Your task to perform on an android device: Go to Google maps Image 0: 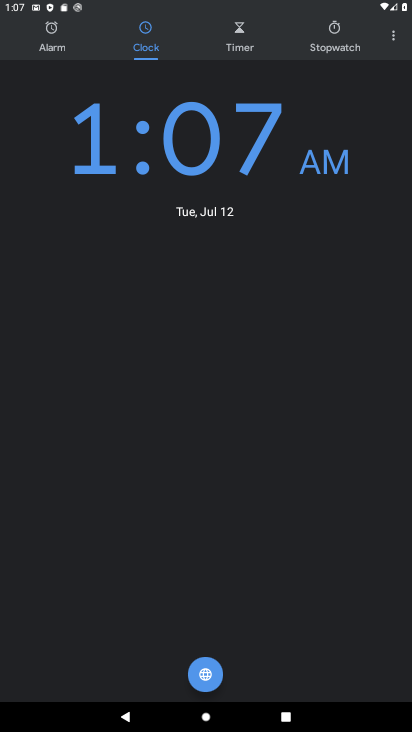
Step 0: press home button
Your task to perform on an android device: Go to Google maps Image 1: 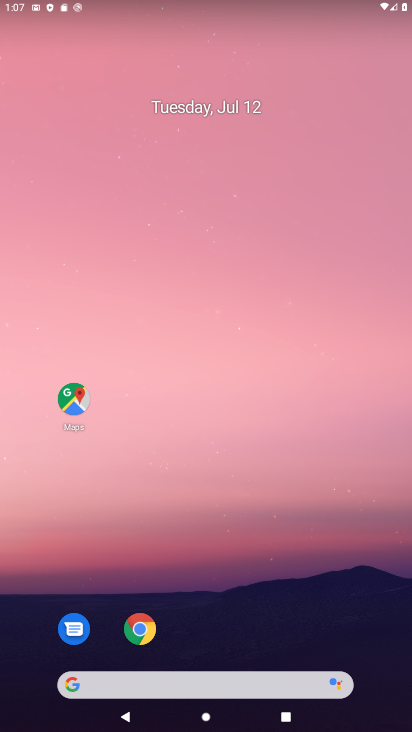
Step 1: drag from (323, 503) to (274, 105)
Your task to perform on an android device: Go to Google maps Image 2: 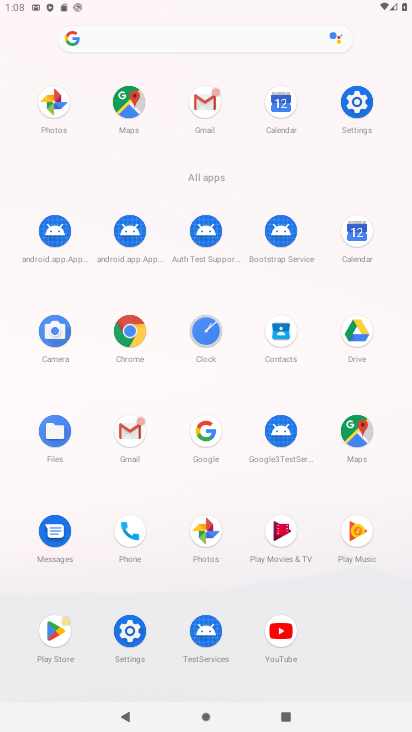
Step 2: click (359, 430)
Your task to perform on an android device: Go to Google maps Image 3: 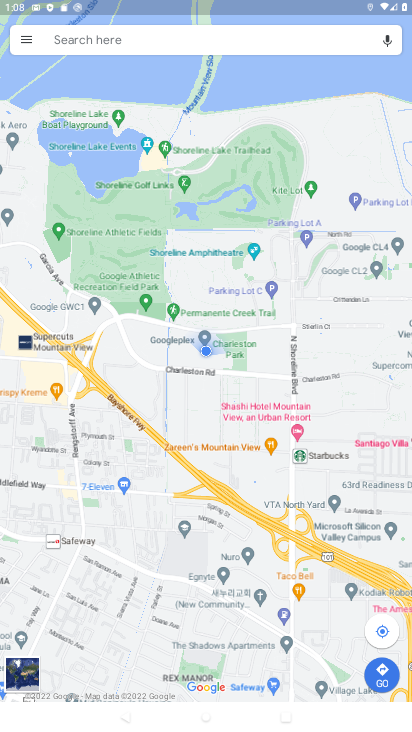
Step 3: task complete